Your task to perform on an android device: Open calendar and show me the fourth week of next month Image 0: 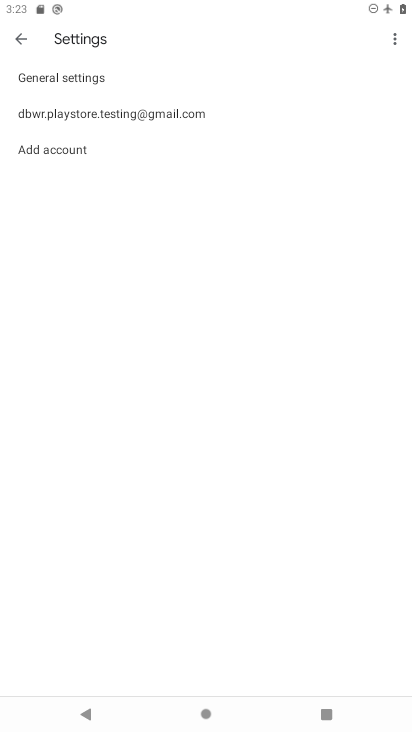
Step 0: press home button
Your task to perform on an android device: Open calendar and show me the fourth week of next month Image 1: 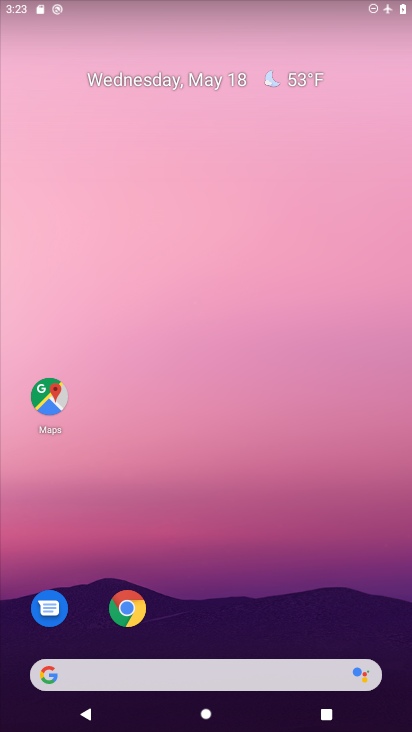
Step 1: drag from (104, 667) to (128, 224)
Your task to perform on an android device: Open calendar and show me the fourth week of next month Image 2: 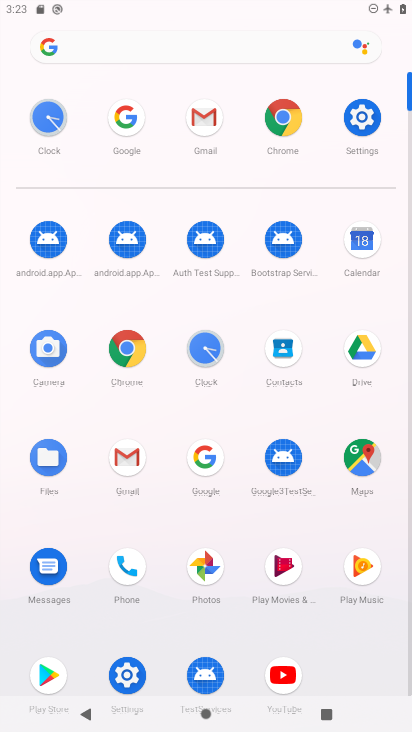
Step 2: click (378, 237)
Your task to perform on an android device: Open calendar and show me the fourth week of next month Image 3: 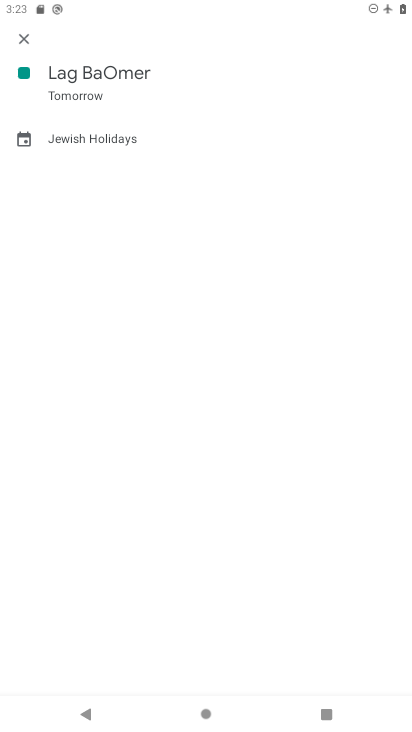
Step 3: press home button
Your task to perform on an android device: Open calendar and show me the fourth week of next month Image 4: 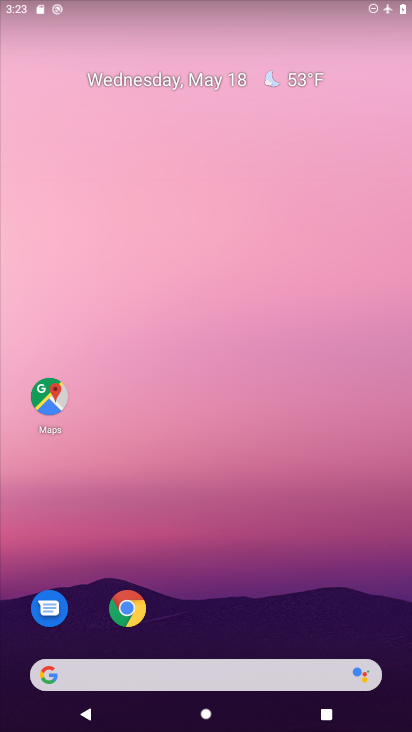
Step 4: drag from (138, 589) to (143, 273)
Your task to perform on an android device: Open calendar and show me the fourth week of next month Image 5: 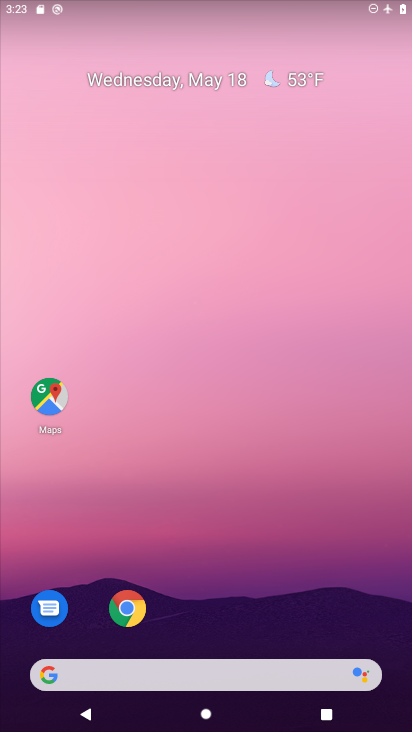
Step 5: drag from (153, 644) to (180, 168)
Your task to perform on an android device: Open calendar and show me the fourth week of next month Image 6: 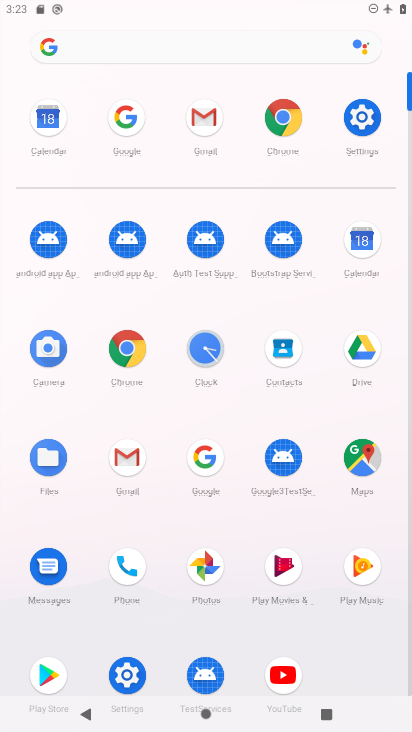
Step 6: click (43, 112)
Your task to perform on an android device: Open calendar and show me the fourth week of next month Image 7: 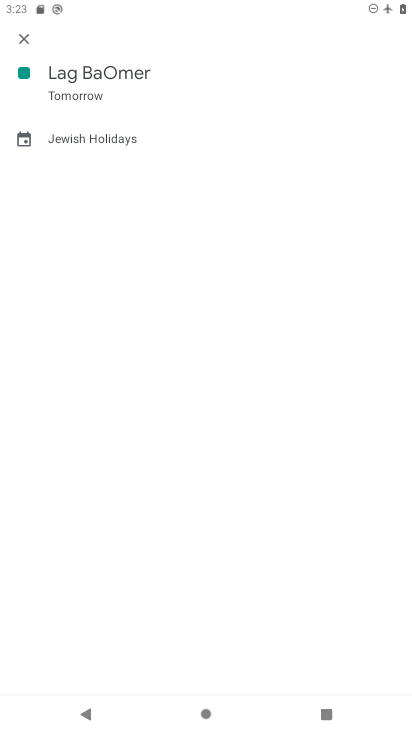
Step 7: click (10, 28)
Your task to perform on an android device: Open calendar and show me the fourth week of next month Image 8: 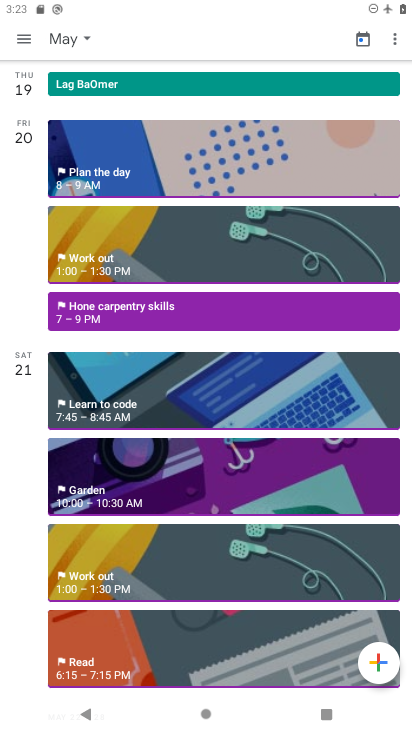
Step 8: click (64, 28)
Your task to perform on an android device: Open calendar and show me the fourth week of next month Image 9: 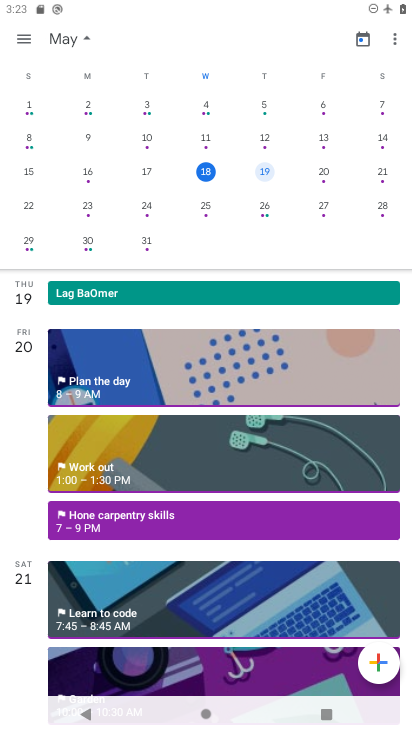
Step 9: drag from (366, 186) to (3, 230)
Your task to perform on an android device: Open calendar and show me the fourth week of next month Image 10: 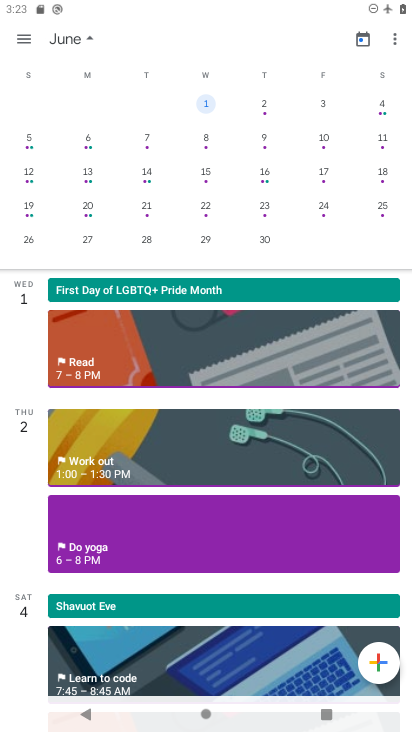
Step 10: click (28, 209)
Your task to perform on an android device: Open calendar and show me the fourth week of next month Image 11: 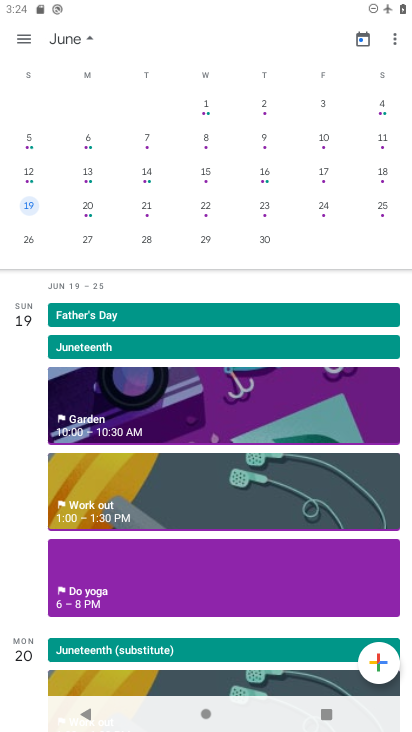
Step 11: task complete